Your task to perform on an android device: set an alarm Image 0: 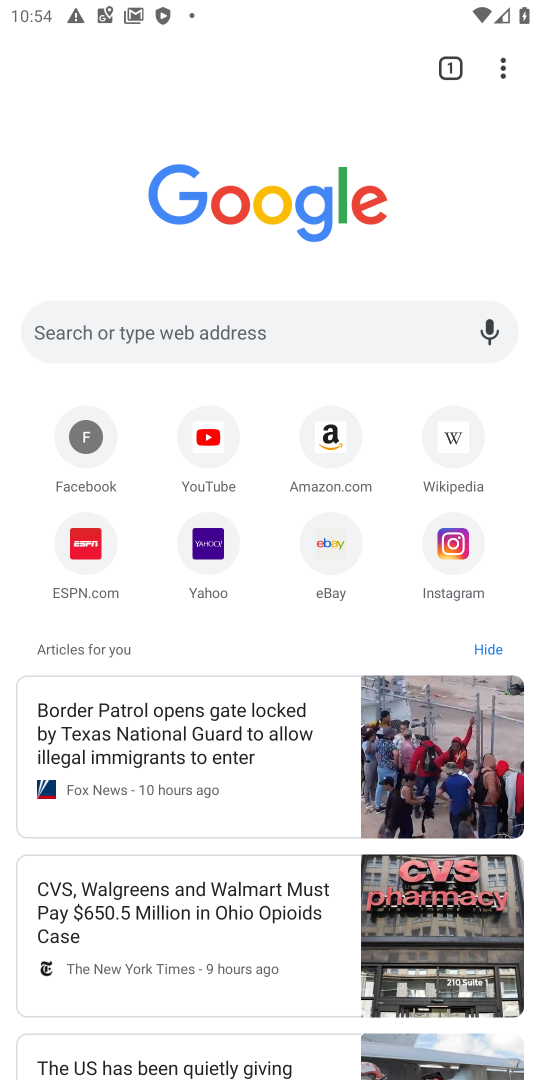
Step 0: press home button
Your task to perform on an android device: set an alarm Image 1: 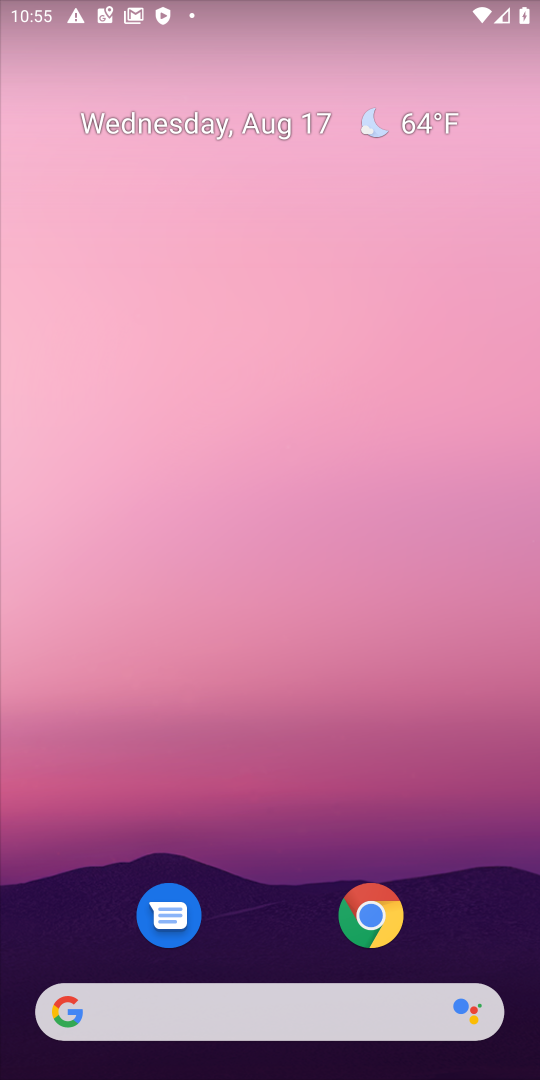
Step 1: drag from (284, 919) to (259, 360)
Your task to perform on an android device: set an alarm Image 2: 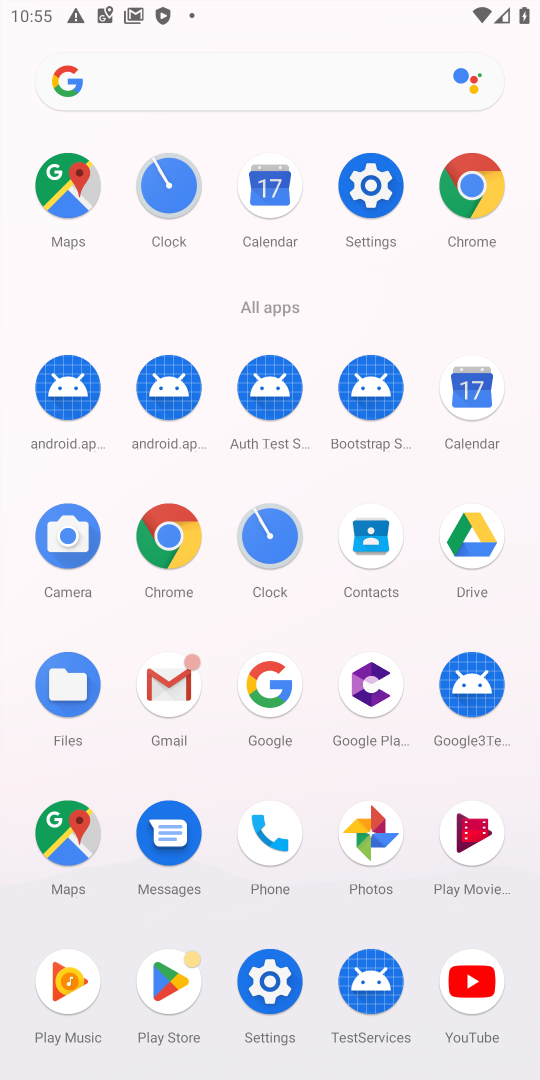
Step 2: click (155, 198)
Your task to perform on an android device: set an alarm Image 3: 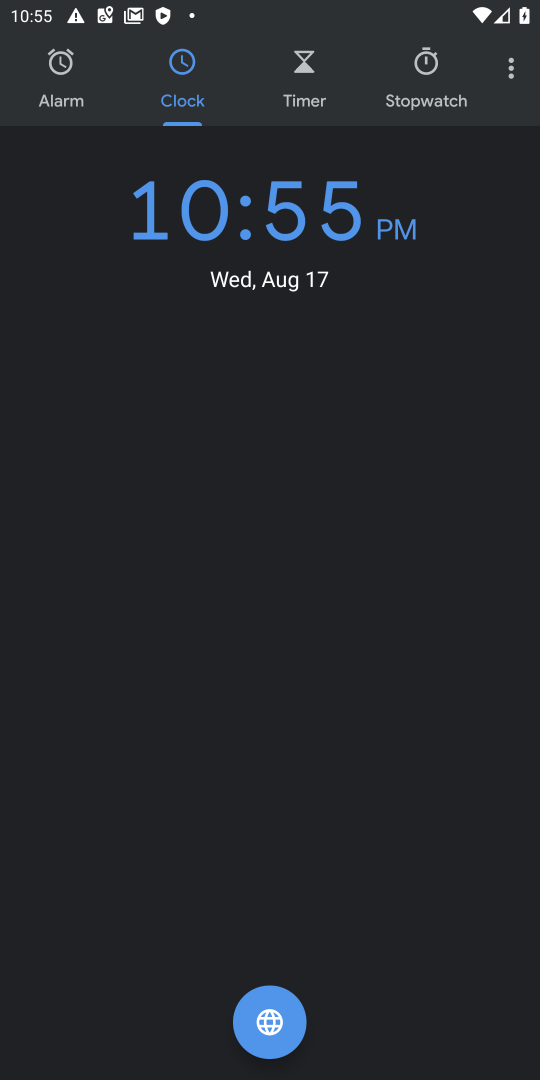
Step 3: click (52, 72)
Your task to perform on an android device: set an alarm Image 4: 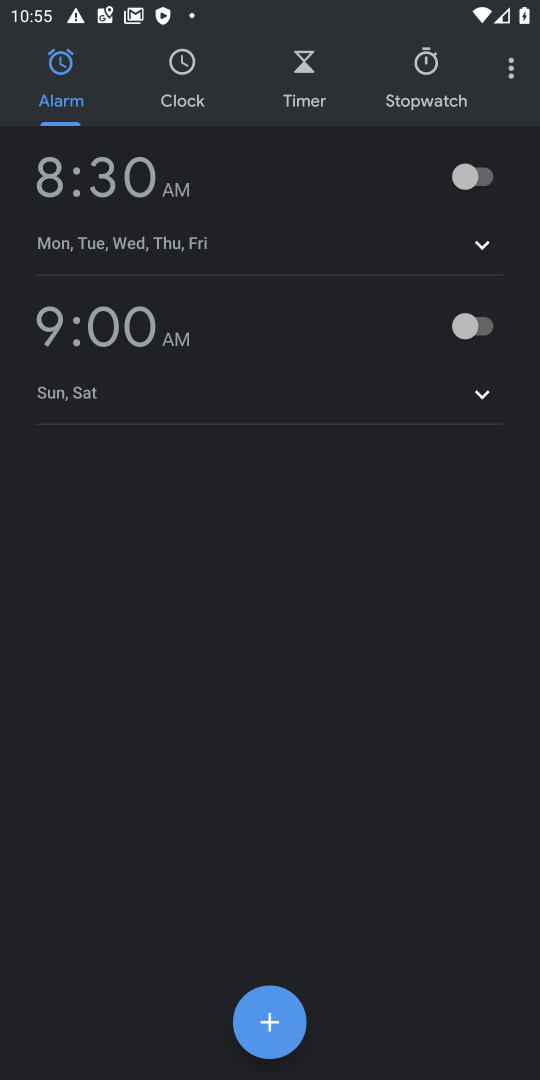
Step 4: click (269, 1027)
Your task to perform on an android device: set an alarm Image 5: 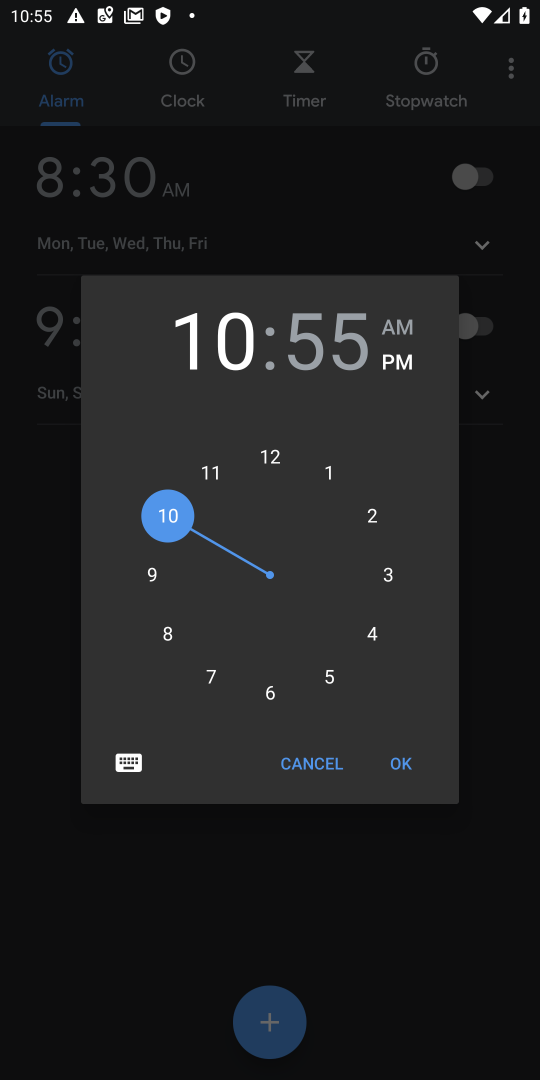
Step 5: click (403, 758)
Your task to perform on an android device: set an alarm Image 6: 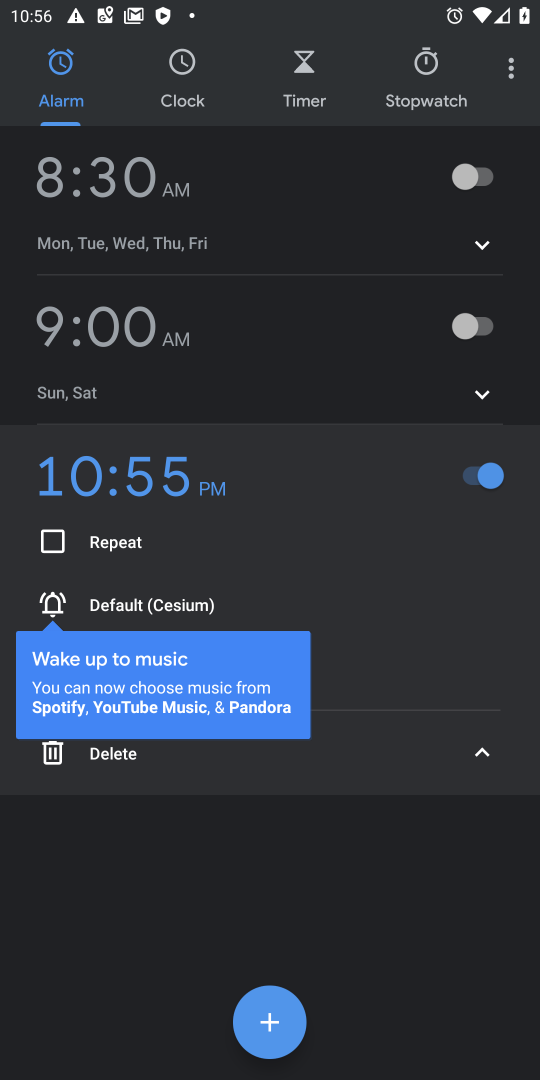
Step 6: task complete